Your task to perform on an android device: Go to Wikipedia Image 0: 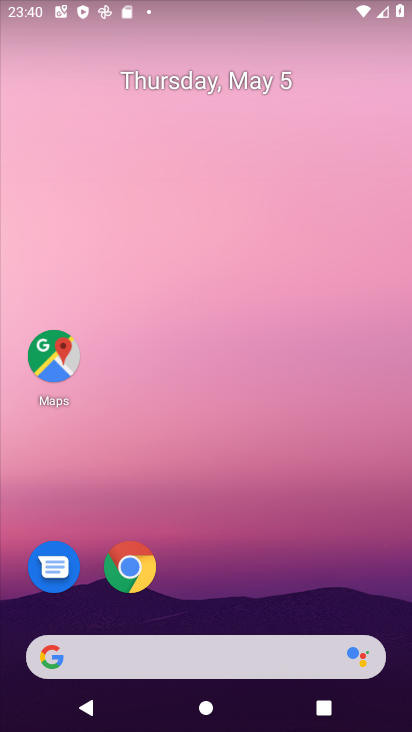
Step 0: click (196, 657)
Your task to perform on an android device: Go to Wikipedia Image 1: 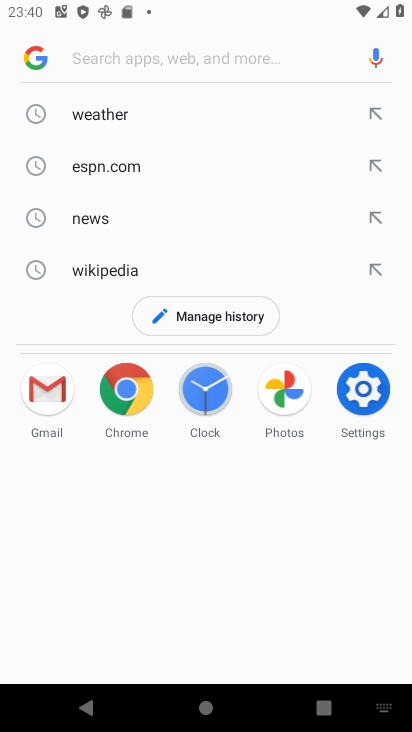
Step 1: click (110, 266)
Your task to perform on an android device: Go to Wikipedia Image 2: 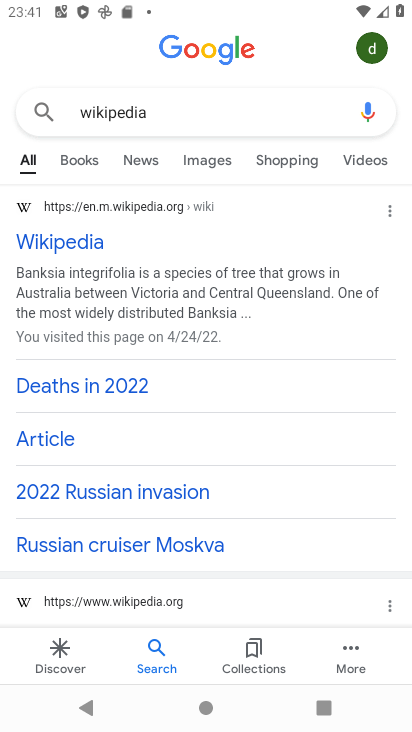
Step 2: click (62, 253)
Your task to perform on an android device: Go to Wikipedia Image 3: 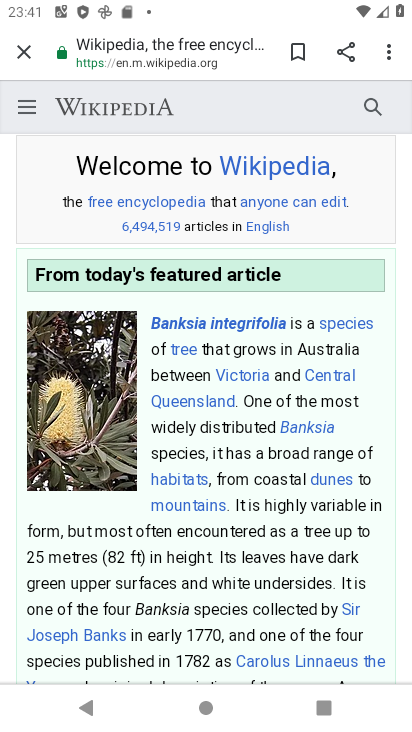
Step 3: task complete